Your task to perform on an android device: Go to Wikipedia Image 0: 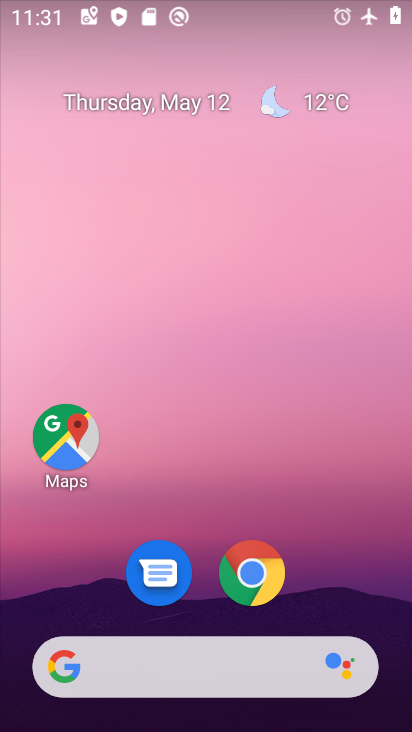
Step 0: click (182, 671)
Your task to perform on an android device: Go to Wikipedia Image 1: 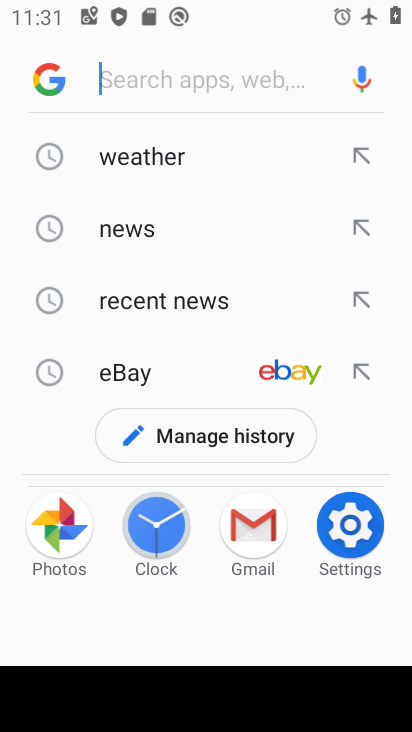
Step 1: type "wikipedia"
Your task to perform on an android device: Go to Wikipedia Image 2: 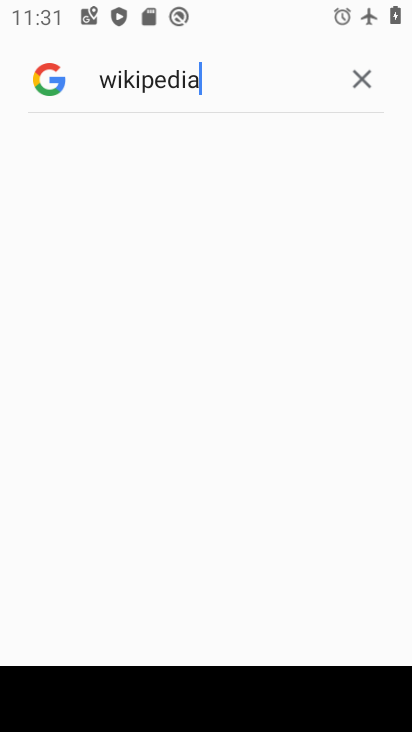
Step 2: task complete